Your task to perform on an android device: find which apps use the phone's location Image 0: 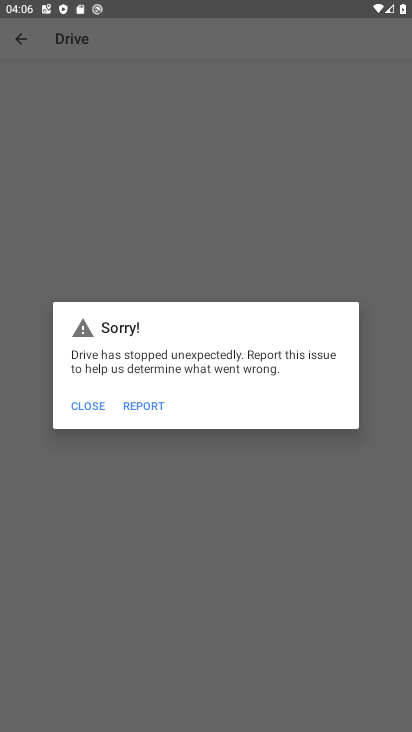
Step 0: press home button
Your task to perform on an android device: find which apps use the phone's location Image 1: 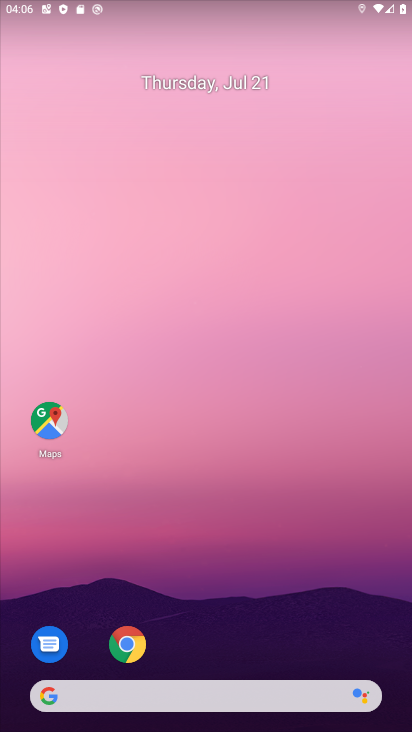
Step 1: drag from (293, 667) to (294, 35)
Your task to perform on an android device: find which apps use the phone's location Image 2: 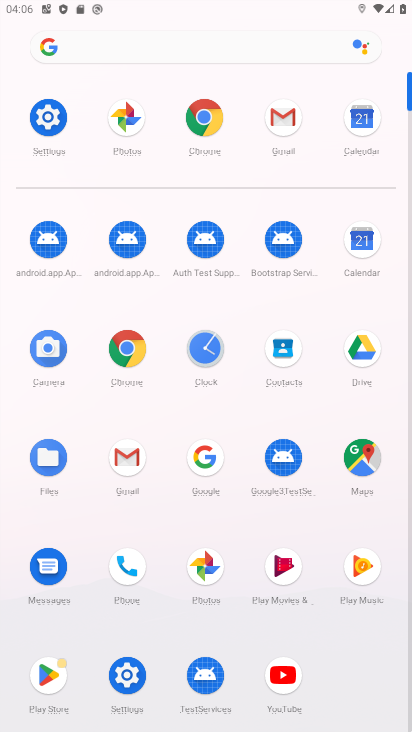
Step 2: click (38, 120)
Your task to perform on an android device: find which apps use the phone's location Image 3: 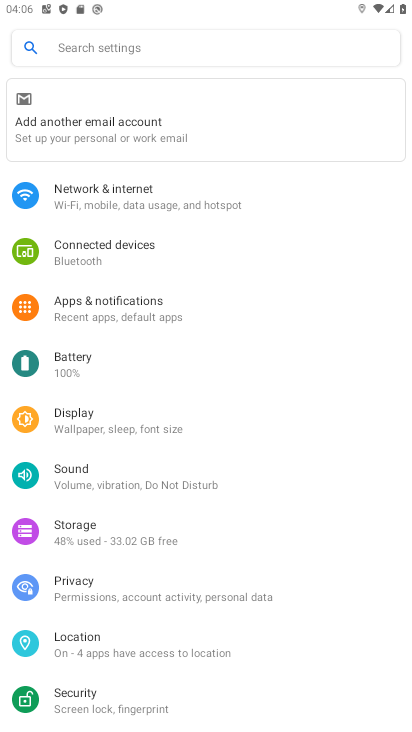
Step 3: click (82, 639)
Your task to perform on an android device: find which apps use the phone's location Image 4: 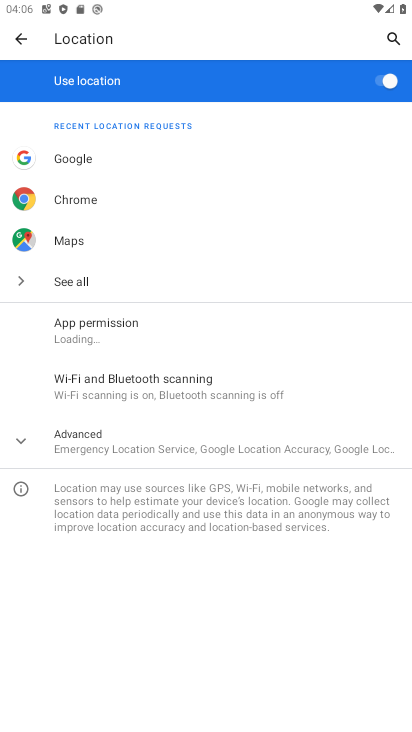
Step 4: click (66, 337)
Your task to perform on an android device: find which apps use the phone's location Image 5: 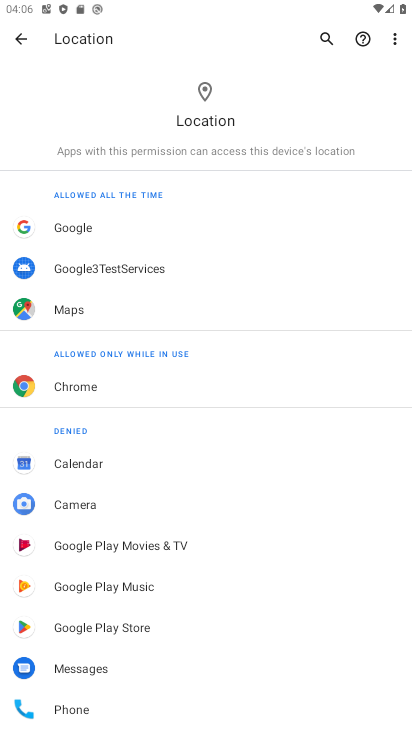
Step 5: task complete